Your task to perform on an android device: Clear the shopping cart on ebay.com. Search for "sony triple a" on ebay.com, select the first entry, and add it to the cart. Image 0: 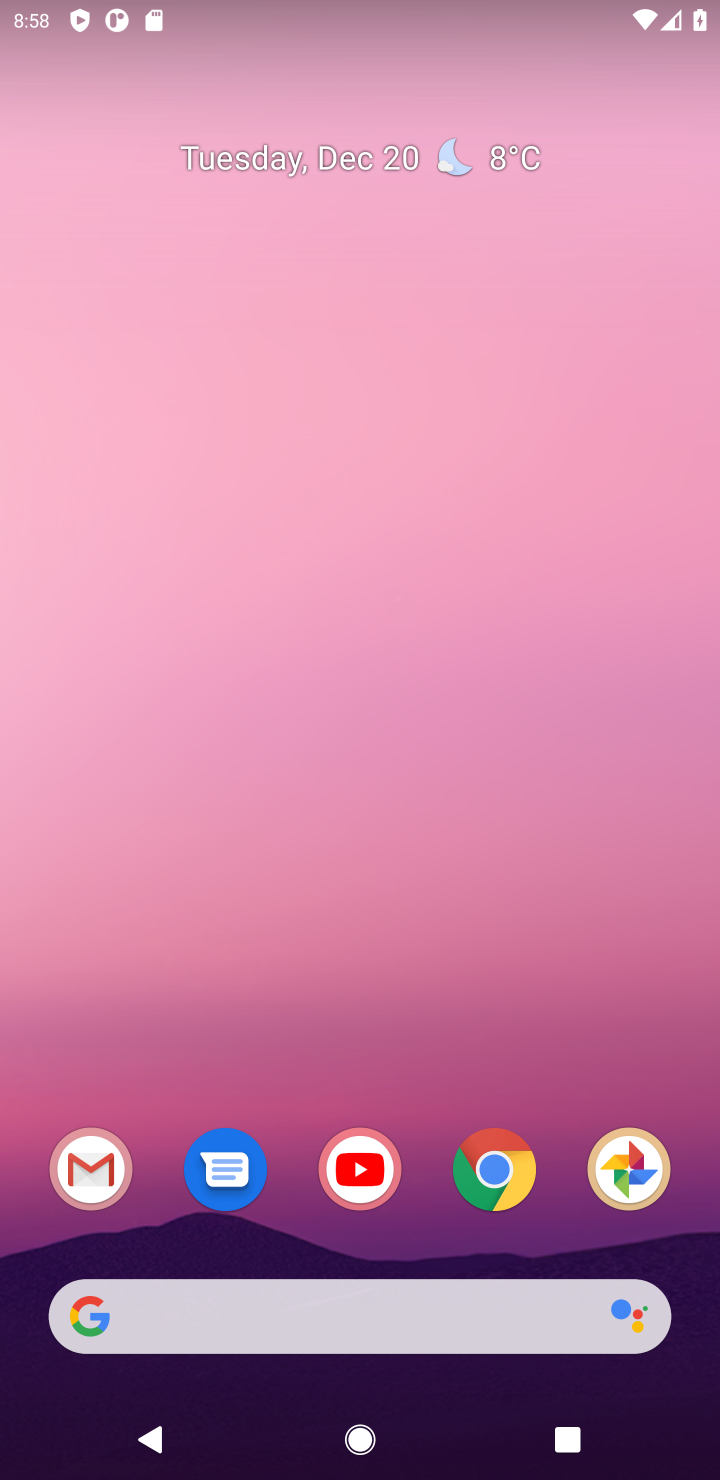
Step 0: click (420, 1298)
Your task to perform on an android device: Clear the shopping cart on ebay.com. Search for "sony triple a" on ebay.com, select the first entry, and add it to the cart. Image 1: 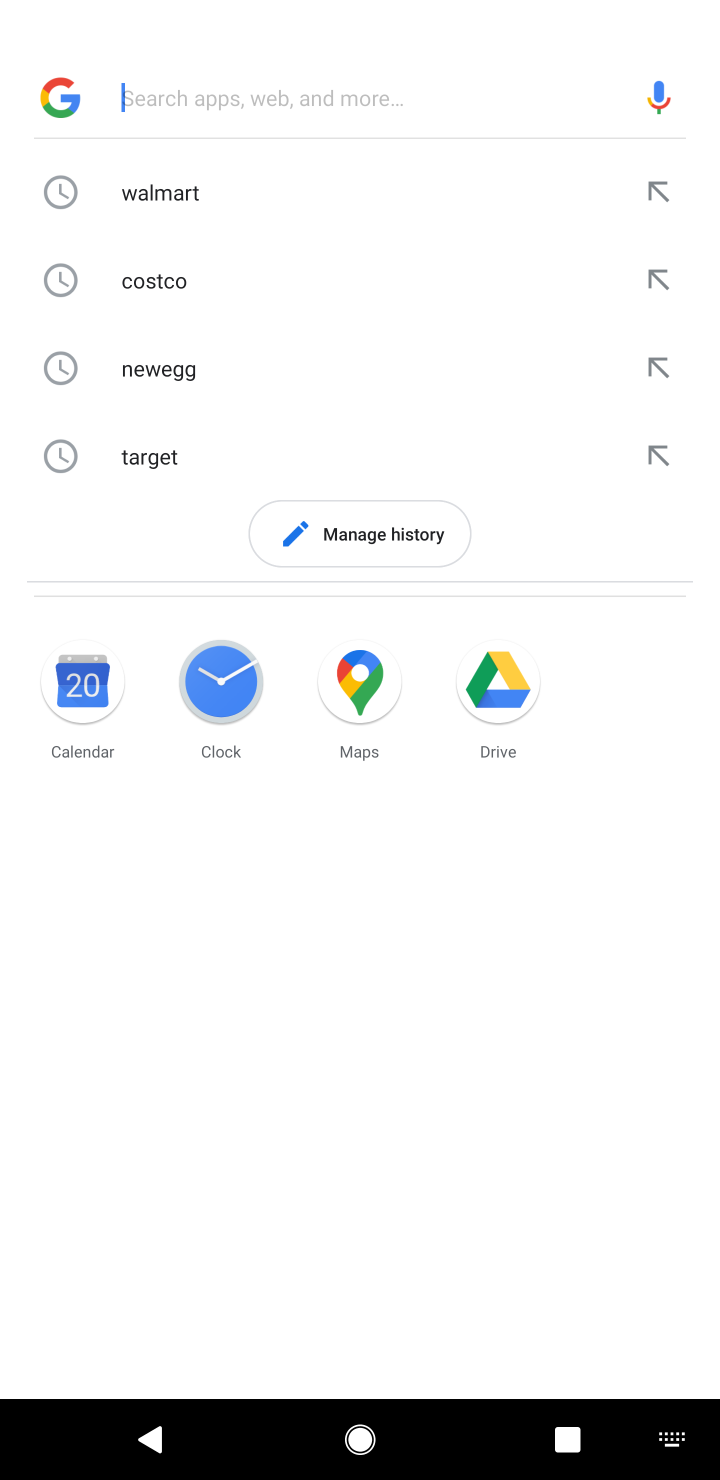
Step 1: type "ebay"
Your task to perform on an android device: Clear the shopping cart on ebay.com. Search for "sony triple a" on ebay.com, select the first entry, and add it to the cart. Image 2: 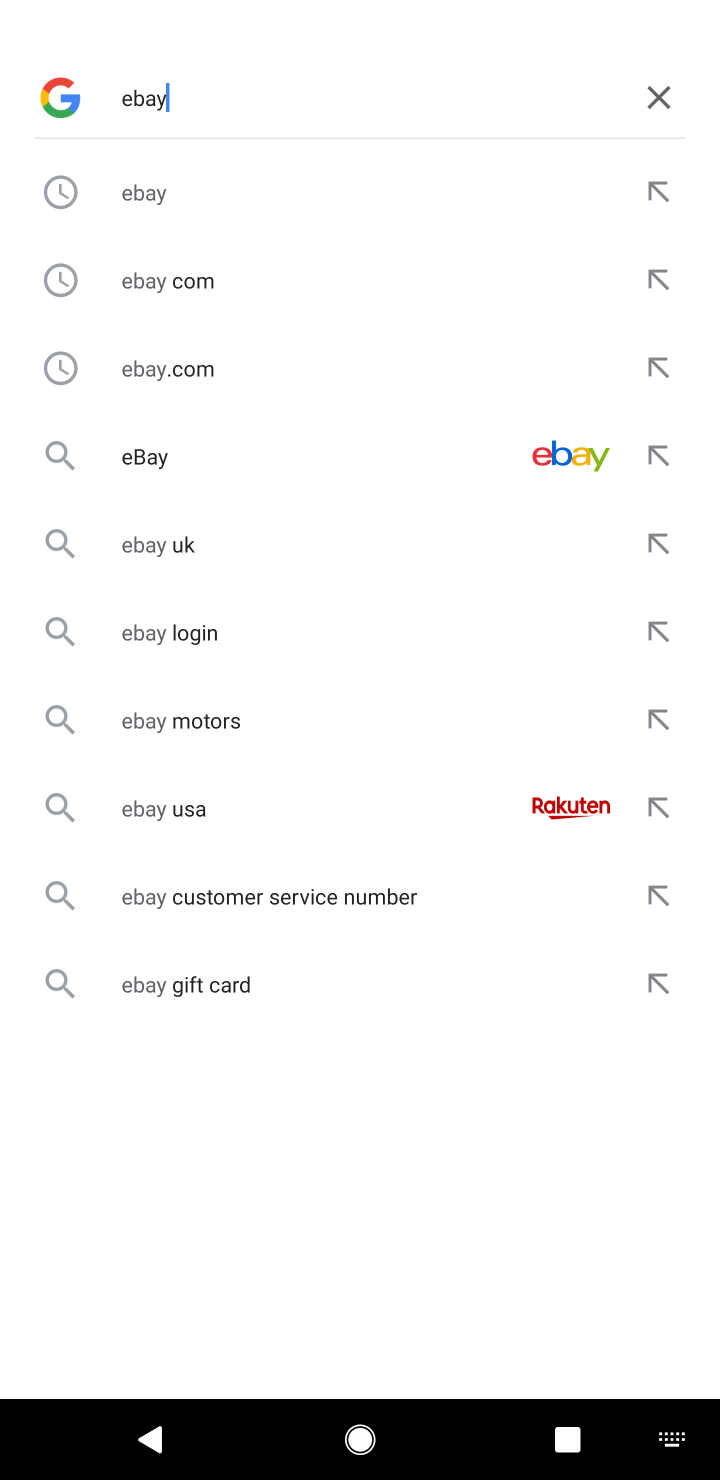
Step 2: click (148, 450)
Your task to perform on an android device: Clear the shopping cart on ebay.com. Search for "sony triple a" on ebay.com, select the first entry, and add it to the cart. Image 3: 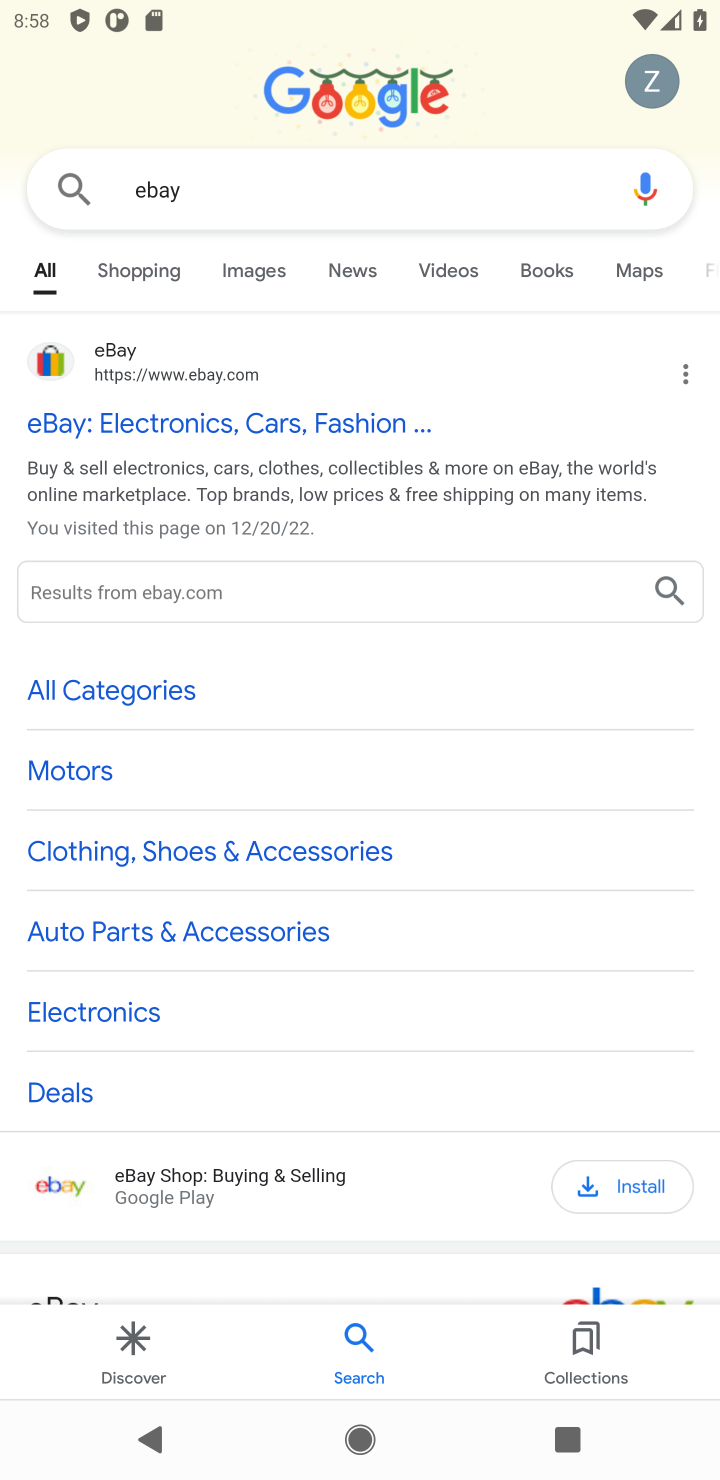
Step 3: click (148, 450)
Your task to perform on an android device: Clear the shopping cart on ebay.com. Search for "sony triple a" on ebay.com, select the first entry, and add it to the cart. Image 4: 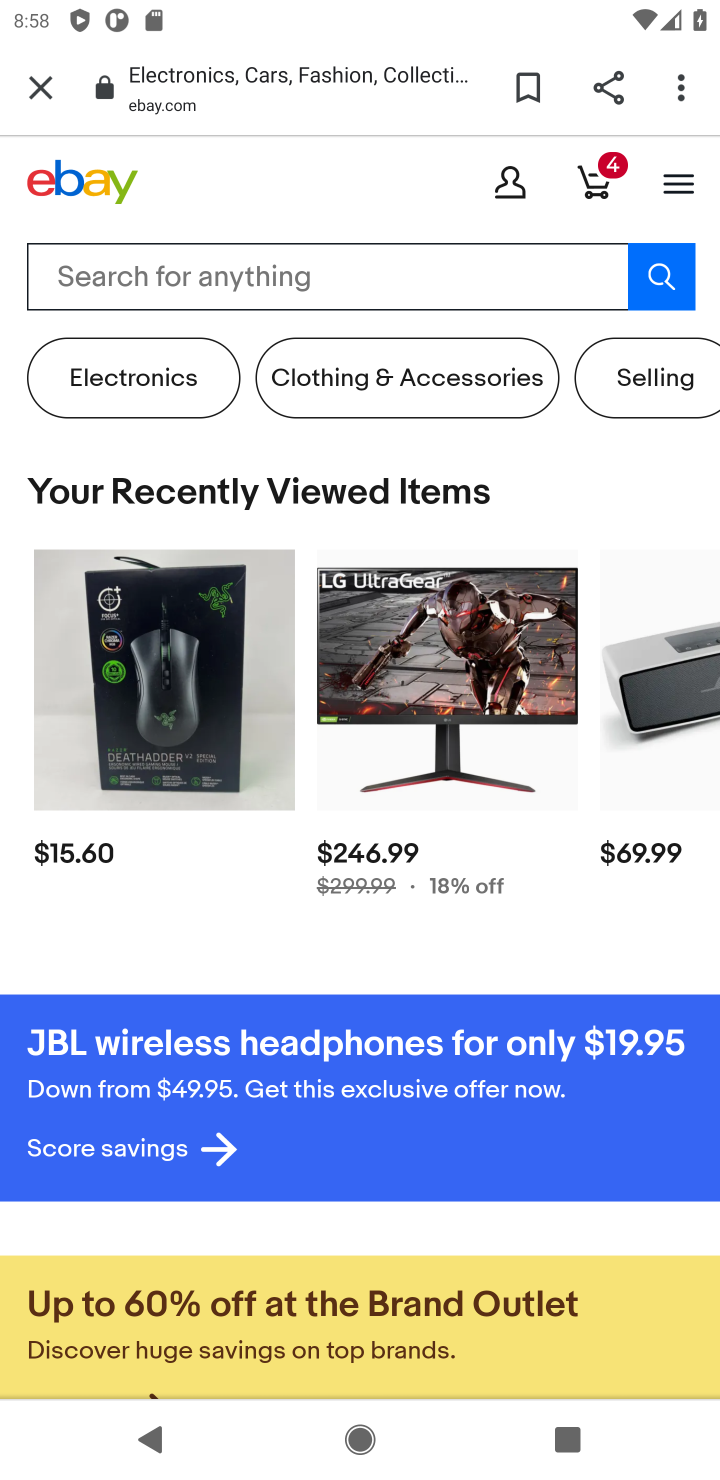
Step 4: click (330, 282)
Your task to perform on an android device: Clear the shopping cart on ebay.com. Search for "sony triple a" on ebay.com, select the first entry, and add it to the cart. Image 5: 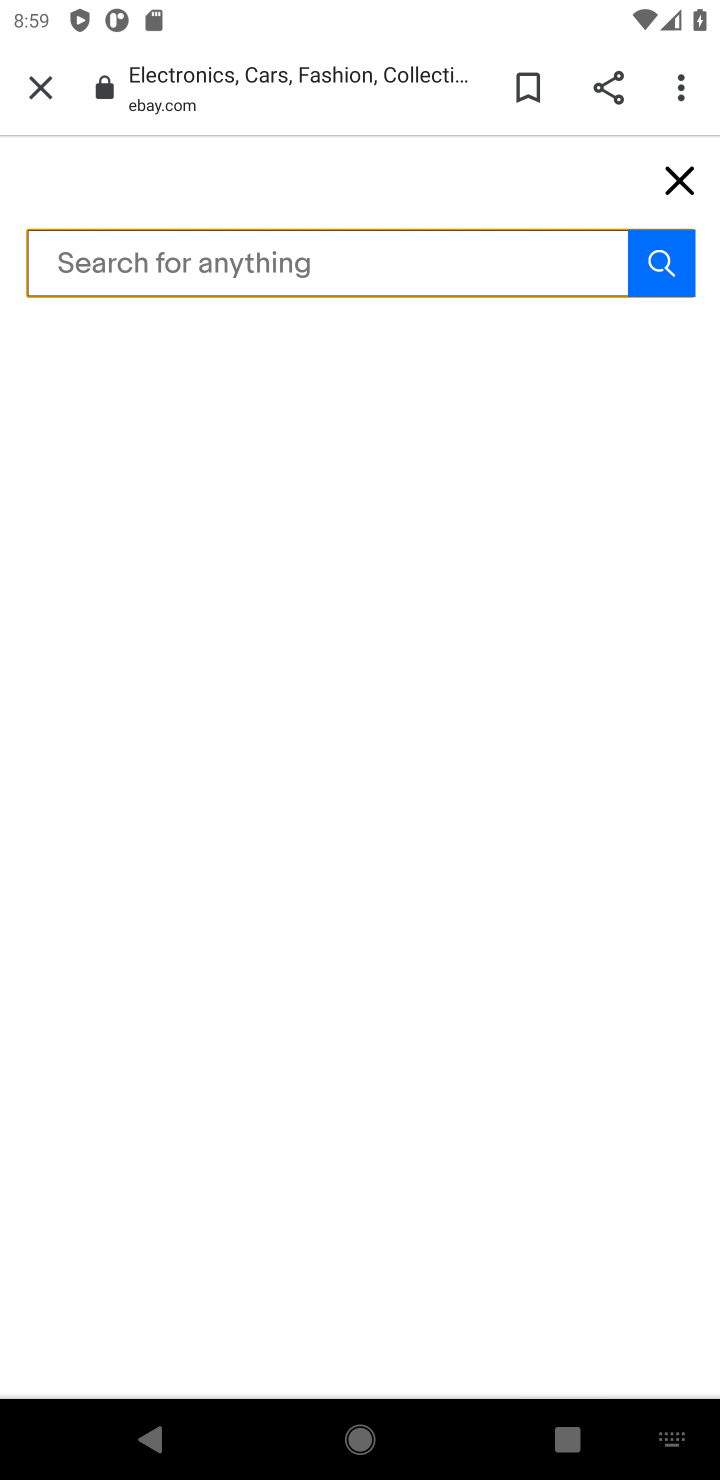
Step 5: type "sony triple a"
Your task to perform on an android device: Clear the shopping cart on ebay.com. Search for "sony triple a" on ebay.com, select the first entry, and add it to the cart. Image 6: 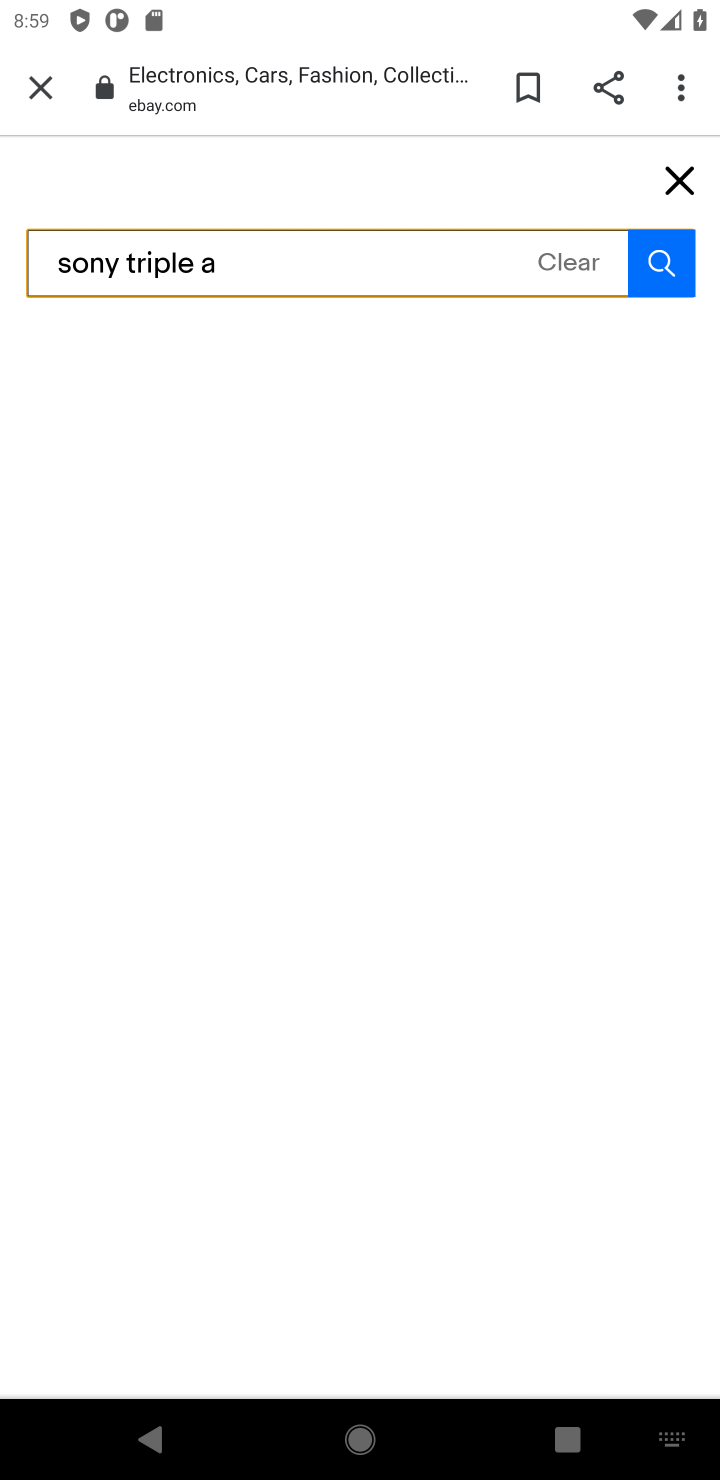
Step 6: click (661, 285)
Your task to perform on an android device: Clear the shopping cart on ebay.com. Search for "sony triple a" on ebay.com, select the first entry, and add it to the cart. Image 7: 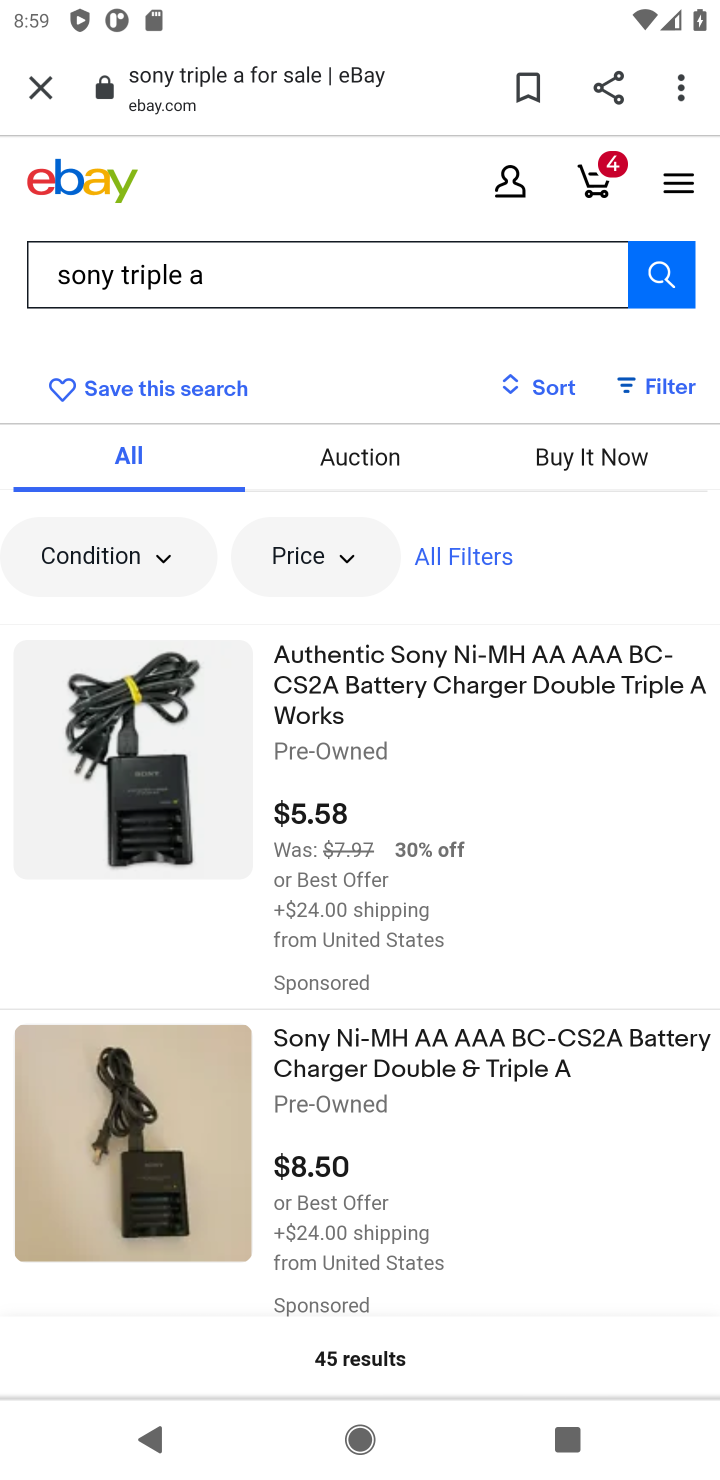
Step 7: click (393, 701)
Your task to perform on an android device: Clear the shopping cart on ebay.com. Search for "sony triple a" on ebay.com, select the first entry, and add it to the cart. Image 8: 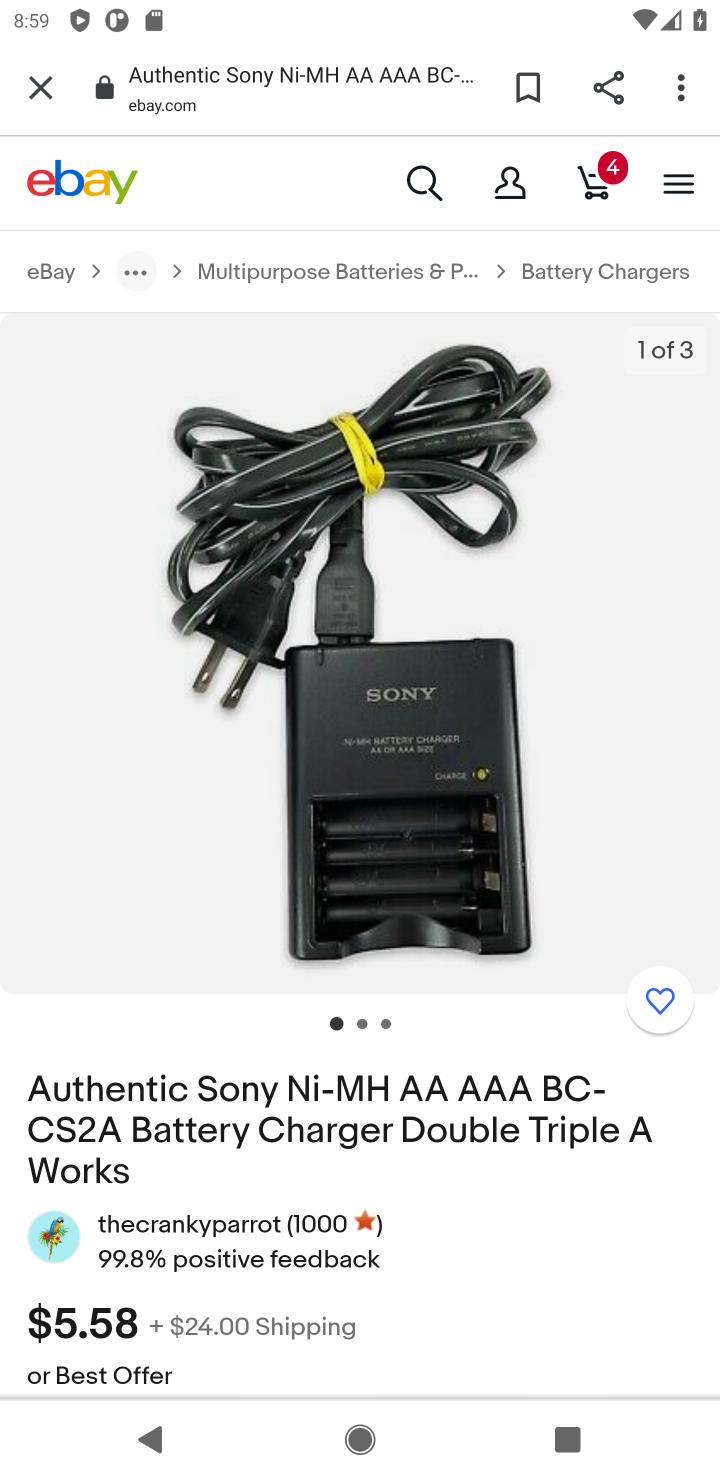
Step 8: task complete